Your task to perform on an android device: toggle wifi Image 0: 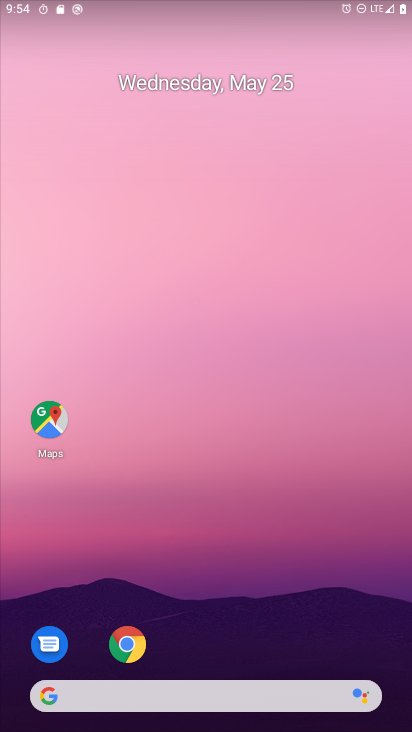
Step 0: drag from (346, 631) to (328, 99)
Your task to perform on an android device: toggle wifi Image 1: 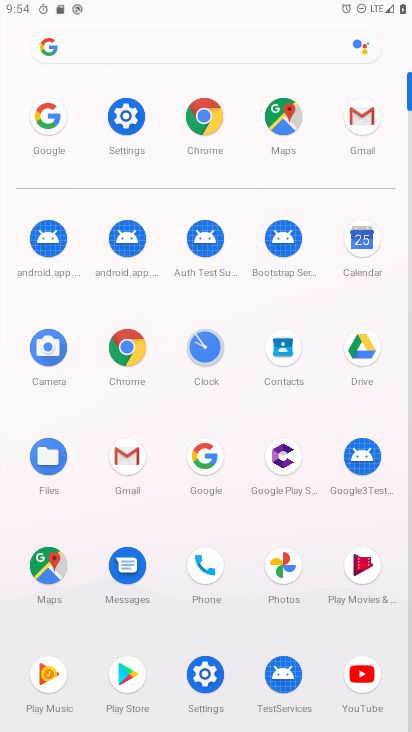
Step 1: press home button
Your task to perform on an android device: toggle wifi Image 2: 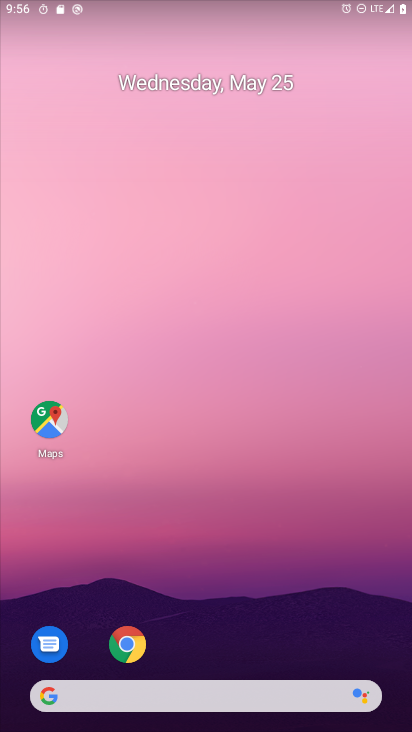
Step 2: drag from (174, 0) to (256, 398)
Your task to perform on an android device: toggle wifi Image 3: 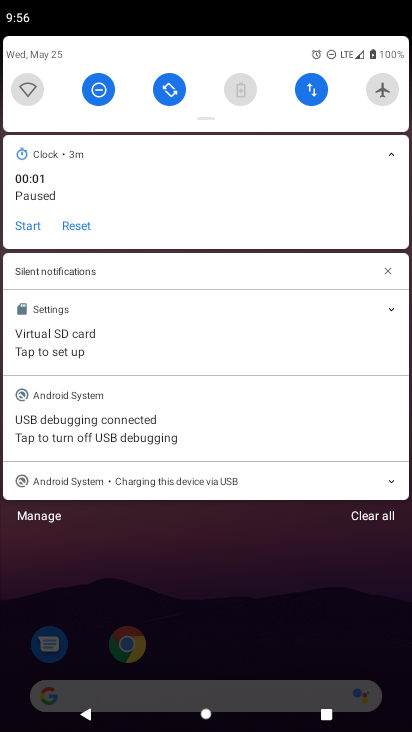
Step 3: click (27, 78)
Your task to perform on an android device: toggle wifi Image 4: 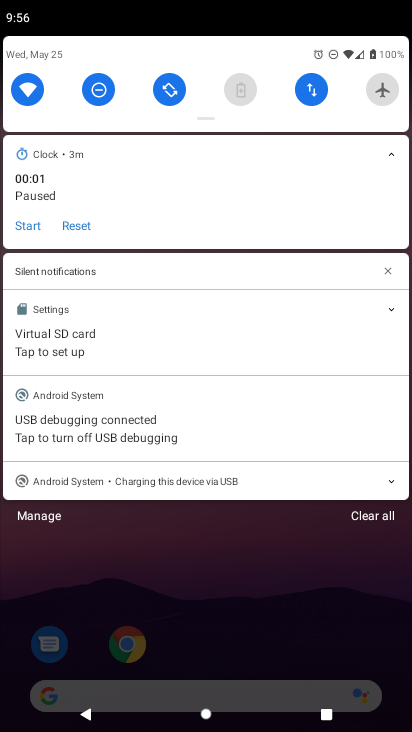
Step 4: task complete